Your task to perform on an android device: Go to notification settings Image 0: 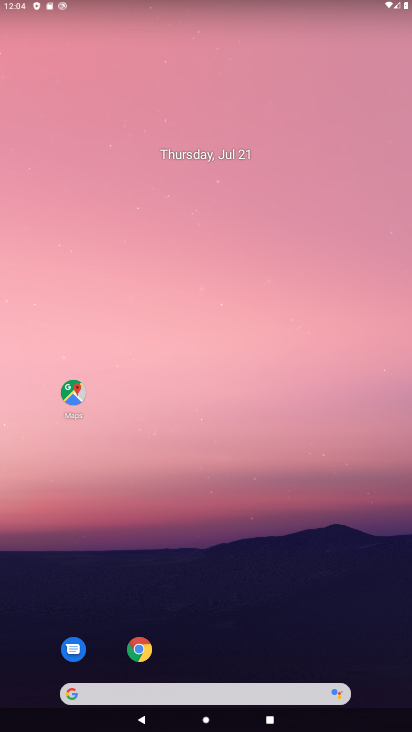
Step 0: drag from (241, 702) to (264, 217)
Your task to perform on an android device: Go to notification settings Image 1: 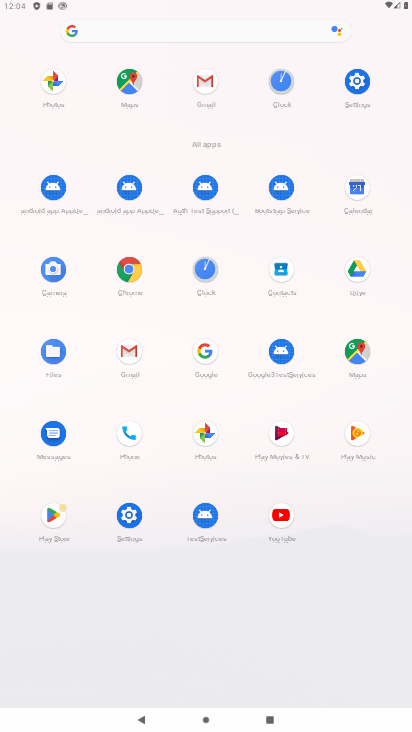
Step 1: click (358, 81)
Your task to perform on an android device: Go to notification settings Image 2: 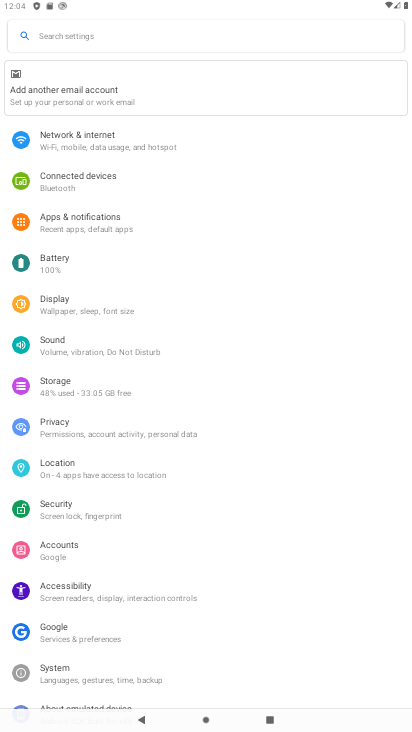
Step 2: click (84, 218)
Your task to perform on an android device: Go to notification settings Image 3: 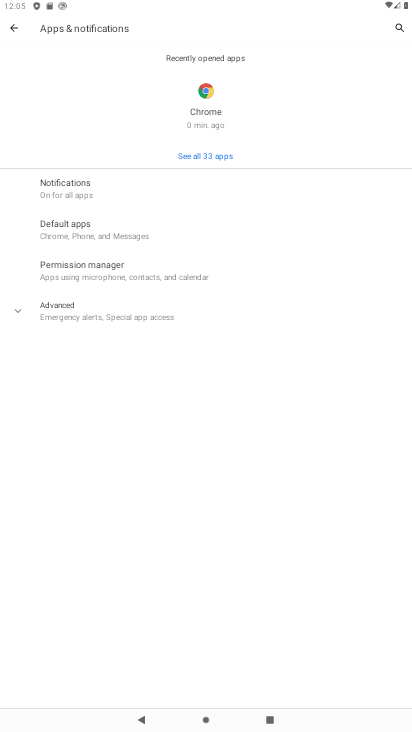
Step 3: click (68, 184)
Your task to perform on an android device: Go to notification settings Image 4: 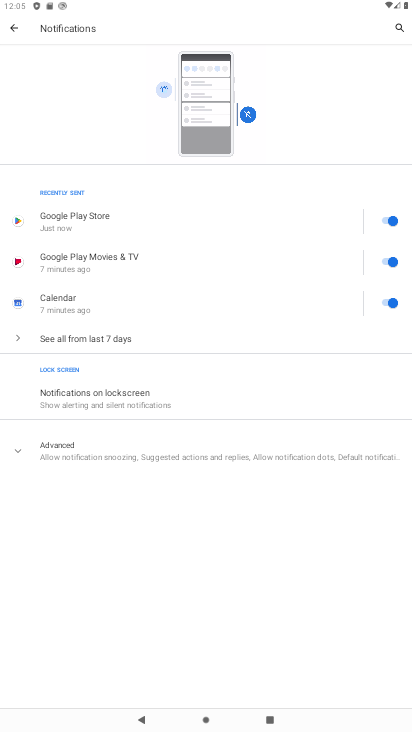
Step 4: click (72, 450)
Your task to perform on an android device: Go to notification settings Image 5: 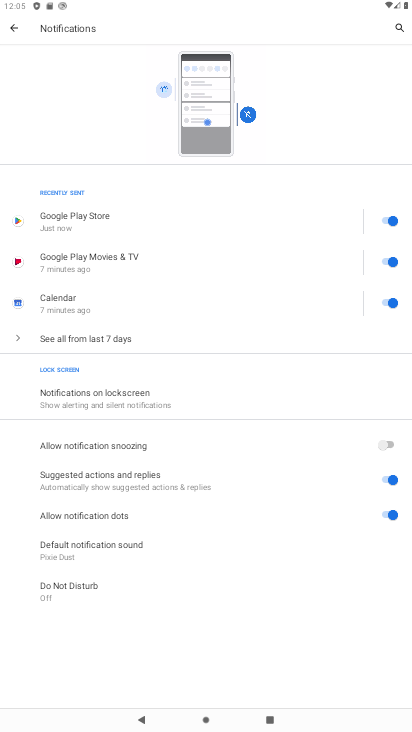
Step 5: click (389, 483)
Your task to perform on an android device: Go to notification settings Image 6: 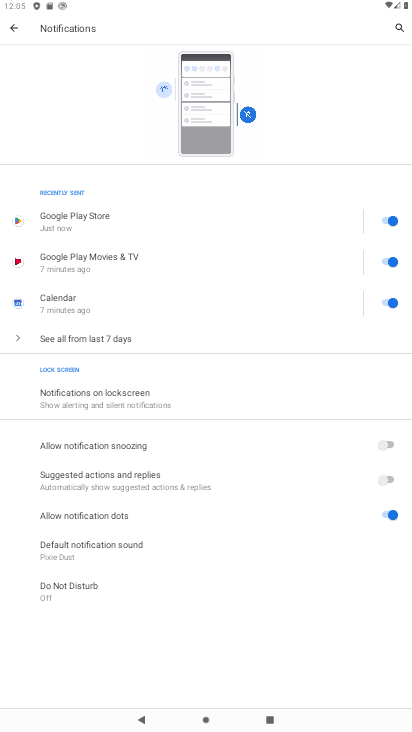
Step 6: task complete